Your task to perform on an android device: turn on priority inbox in the gmail app Image 0: 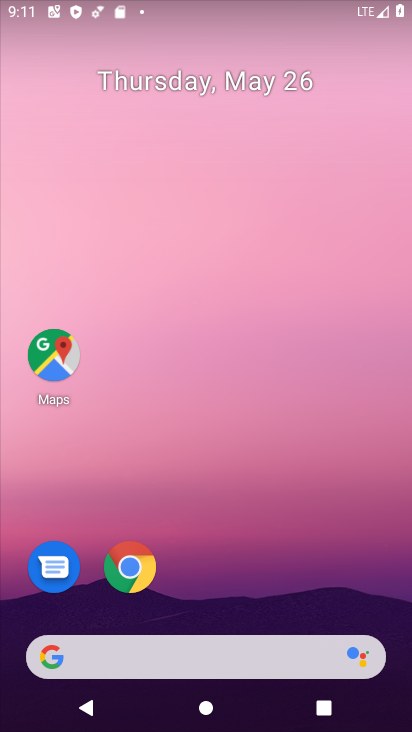
Step 0: drag from (239, 531) to (229, 1)
Your task to perform on an android device: turn on priority inbox in the gmail app Image 1: 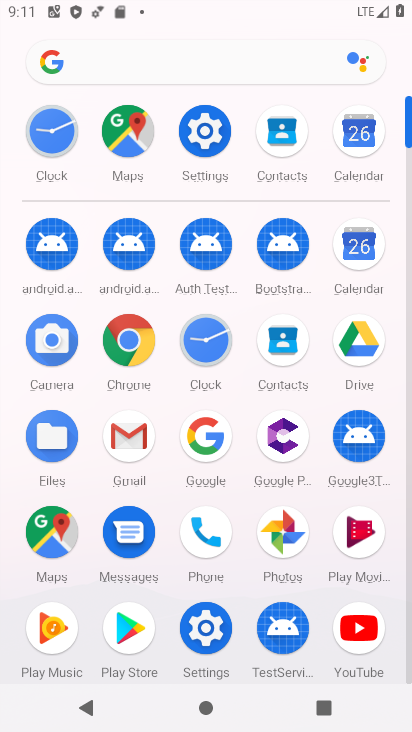
Step 1: click (130, 450)
Your task to perform on an android device: turn on priority inbox in the gmail app Image 2: 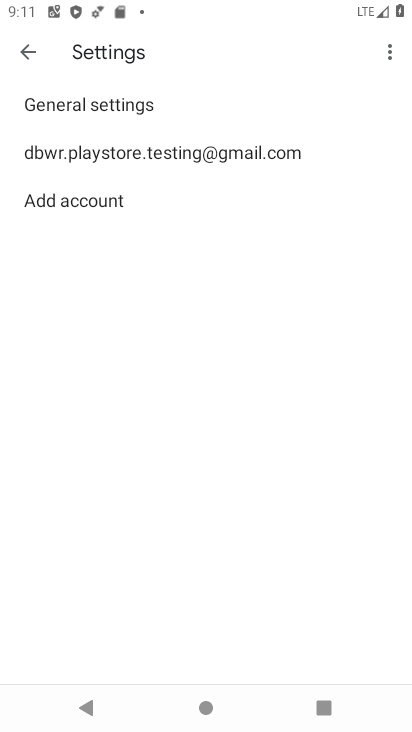
Step 2: click (84, 155)
Your task to perform on an android device: turn on priority inbox in the gmail app Image 3: 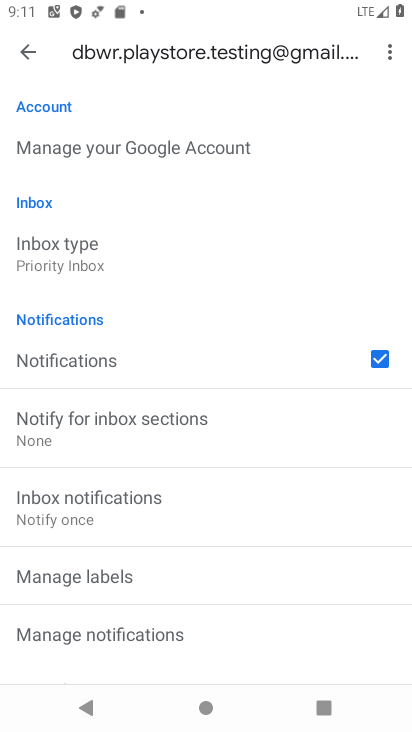
Step 3: task complete